Your task to perform on an android device: turn off priority inbox in the gmail app Image 0: 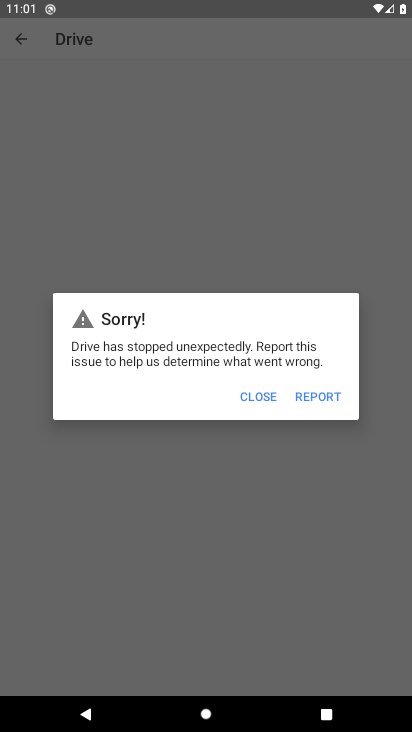
Step 0: press home button
Your task to perform on an android device: turn off priority inbox in the gmail app Image 1: 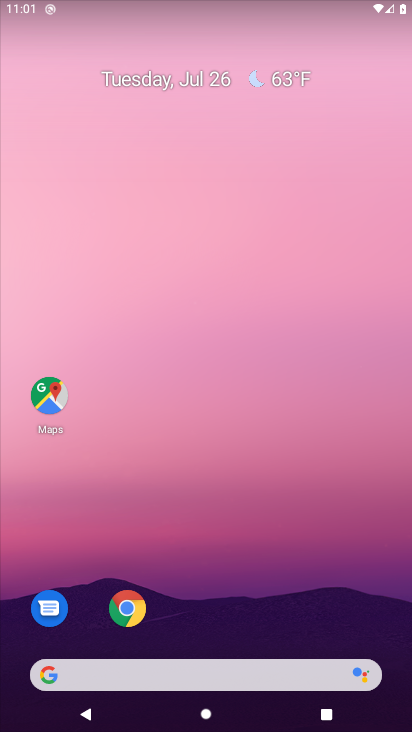
Step 1: drag from (233, 584) to (214, 84)
Your task to perform on an android device: turn off priority inbox in the gmail app Image 2: 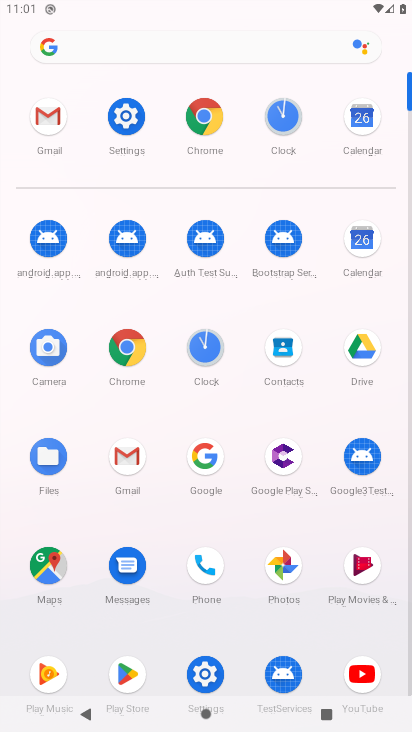
Step 2: click (46, 119)
Your task to perform on an android device: turn off priority inbox in the gmail app Image 3: 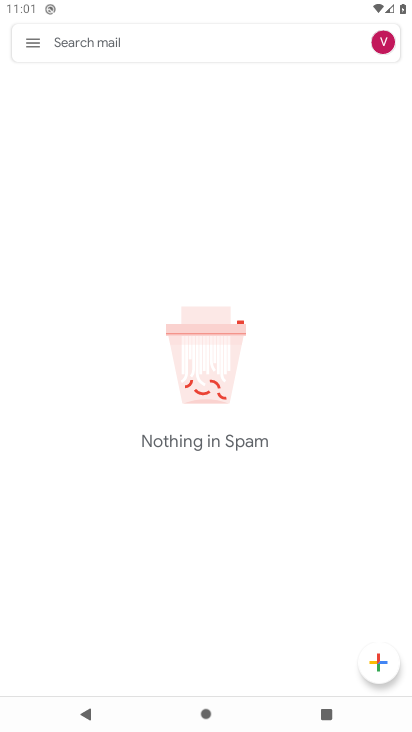
Step 3: click (28, 44)
Your task to perform on an android device: turn off priority inbox in the gmail app Image 4: 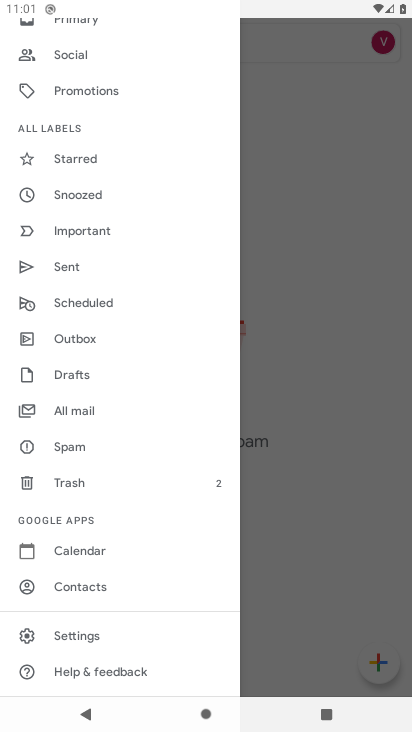
Step 4: click (83, 634)
Your task to perform on an android device: turn off priority inbox in the gmail app Image 5: 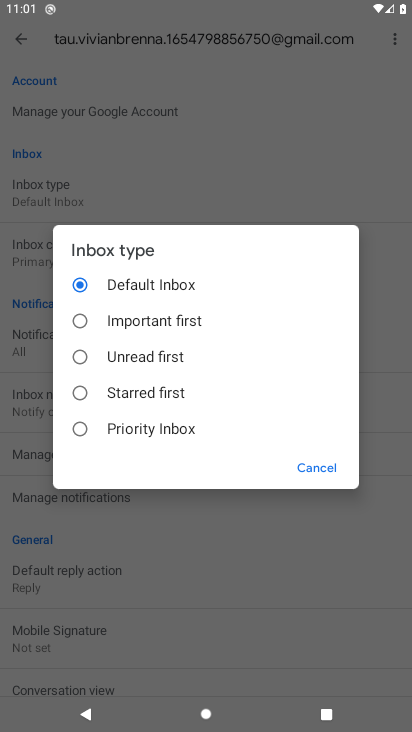
Step 5: task complete